Your task to perform on an android device: toggle data saver in the chrome app Image 0: 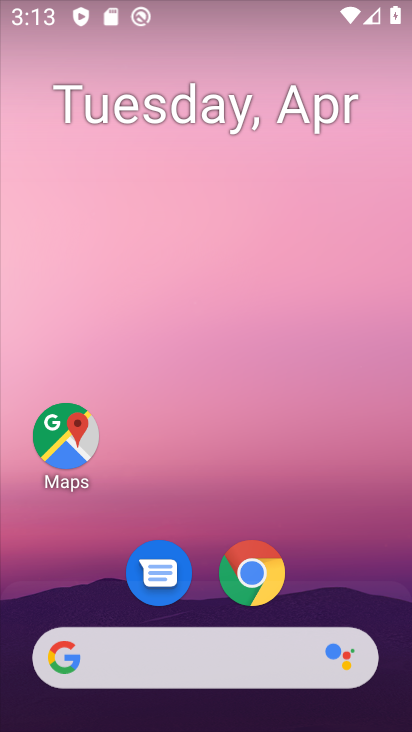
Step 0: click (221, 584)
Your task to perform on an android device: toggle data saver in the chrome app Image 1: 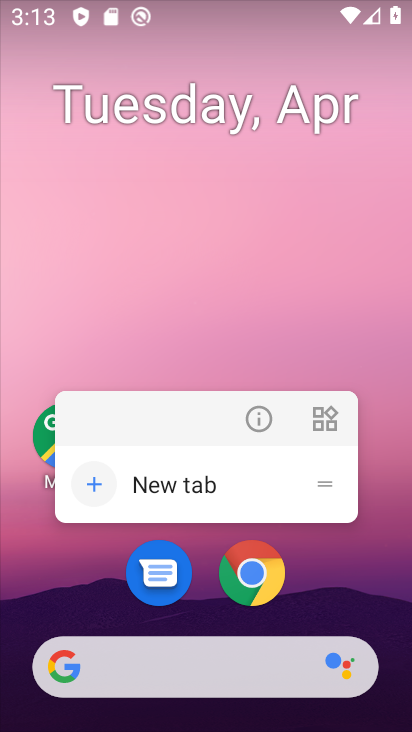
Step 1: click (247, 585)
Your task to perform on an android device: toggle data saver in the chrome app Image 2: 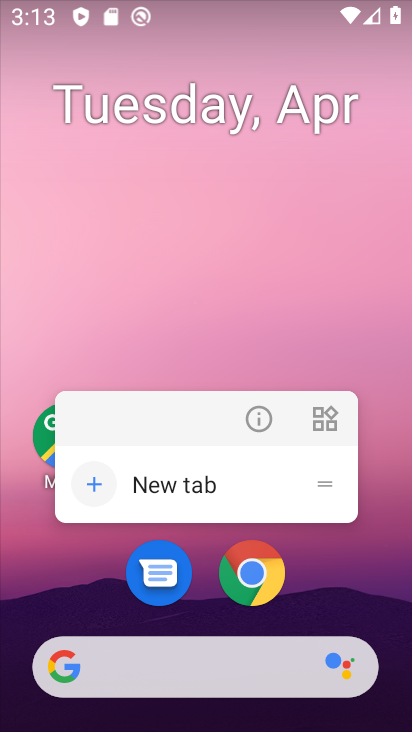
Step 2: click (263, 573)
Your task to perform on an android device: toggle data saver in the chrome app Image 3: 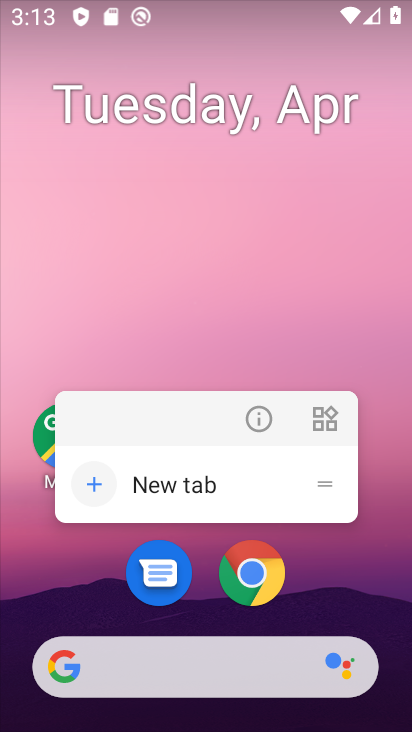
Step 3: click (262, 574)
Your task to perform on an android device: toggle data saver in the chrome app Image 4: 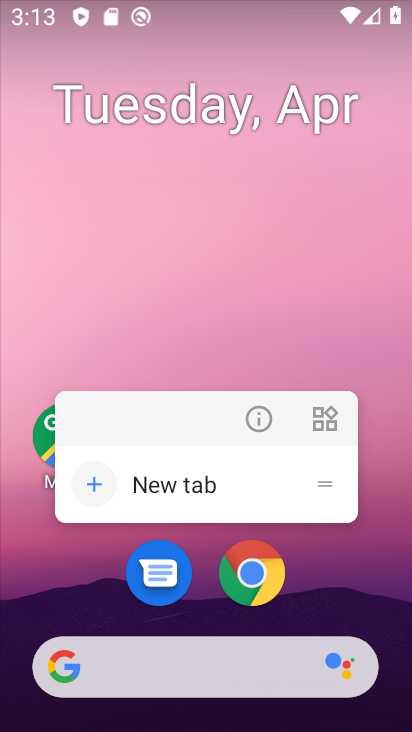
Step 4: click (244, 558)
Your task to perform on an android device: toggle data saver in the chrome app Image 5: 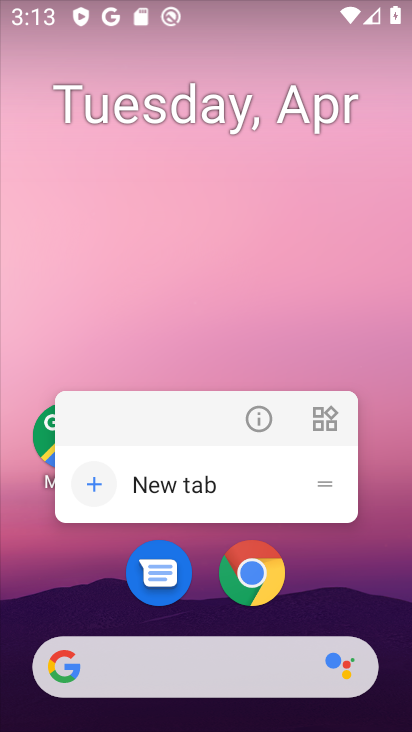
Step 5: click (246, 579)
Your task to perform on an android device: toggle data saver in the chrome app Image 6: 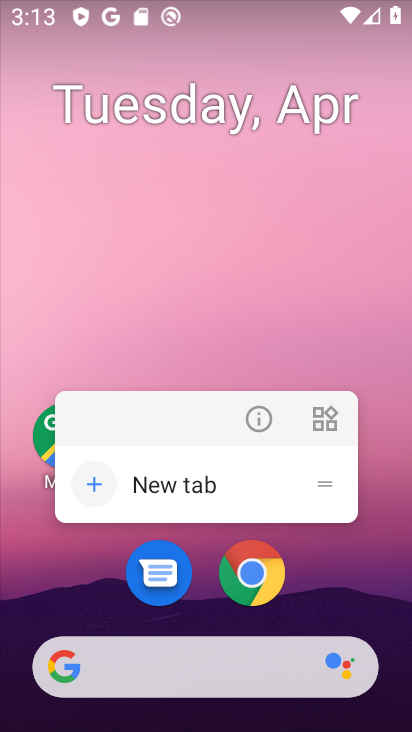
Step 6: click (265, 571)
Your task to perform on an android device: toggle data saver in the chrome app Image 7: 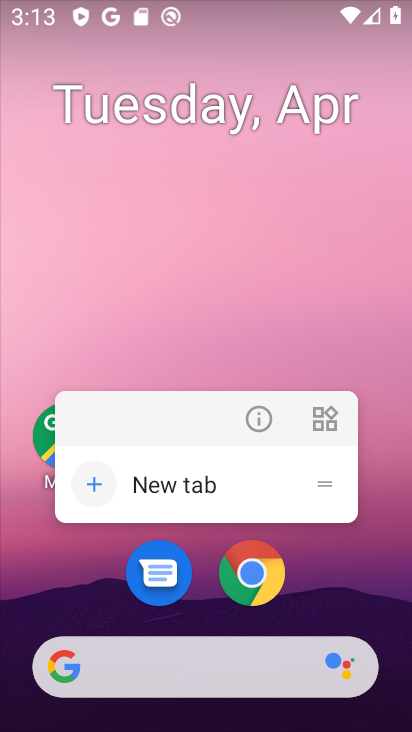
Step 7: click (273, 594)
Your task to perform on an android device: toggle data saver in the chrome app Image 8: 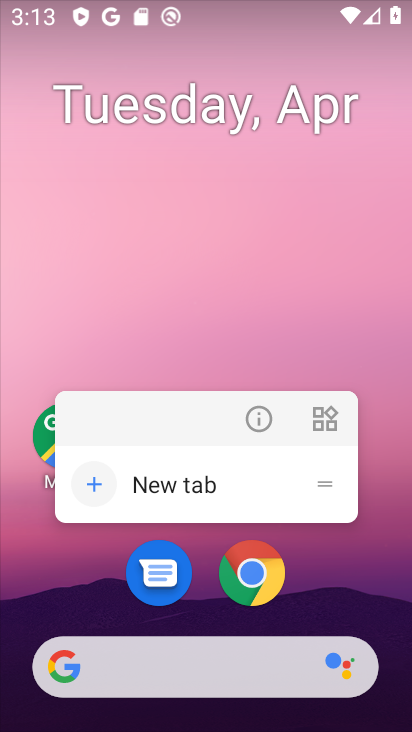
Step 8: click (267, 587)
Your task to perform on an android device: toggle data saver in the chrome app Image 9: 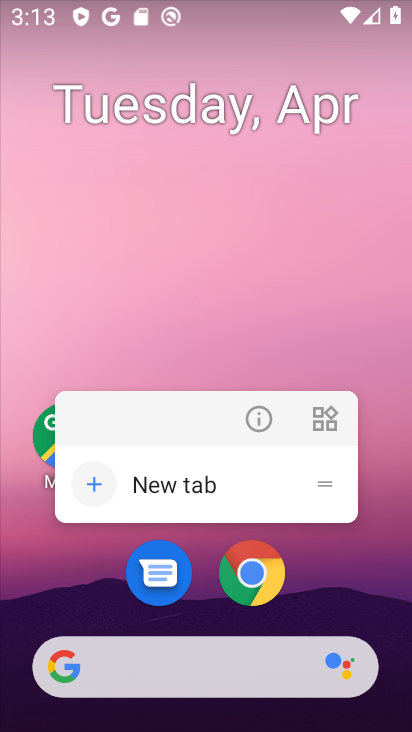
Step 9: drag from (343, 631) to (411, 71)
Your task to perform on an android device: toggle data saver in the chrome app Image 10: 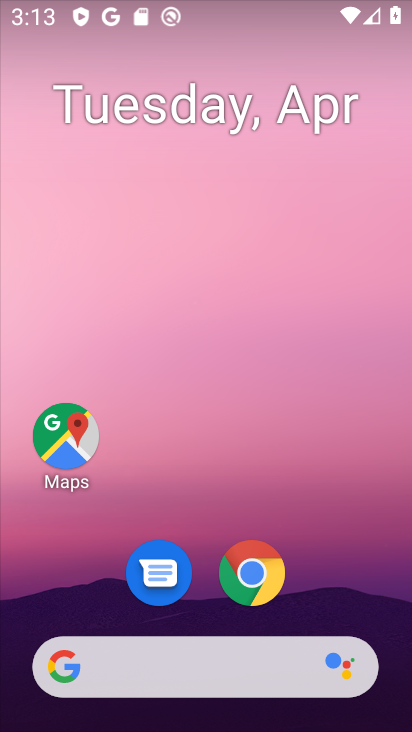
Step 10: drag from (332, 554) to (410, 440)
Your task to perform on an android device: toggle data saver in the chrome app Image 11: 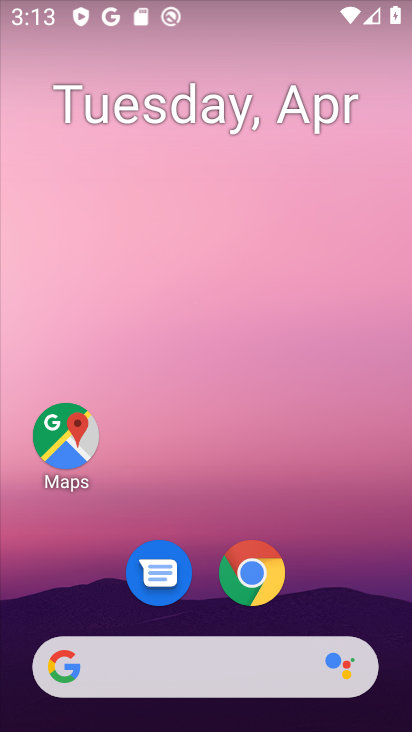
Step 11: drag from (341, 347) to (404, 348)
Your task to perform on an android device: toggle data saver in the chrome app Image 12: 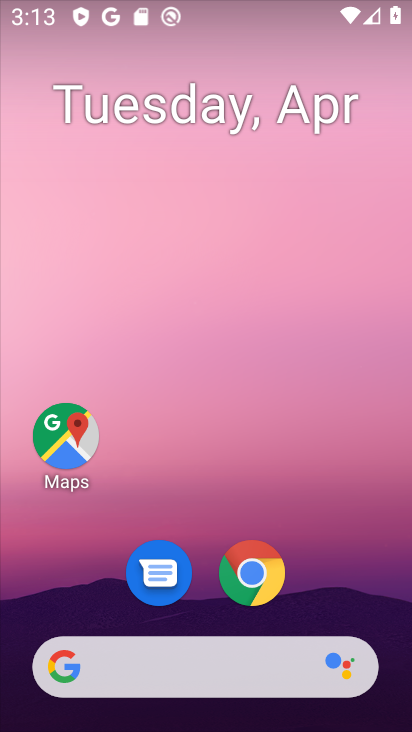
Step 12: drag from (339, 473) to (412, 526)
Your task to perform on an android device: toggle data saver in the chrome app Image 13: 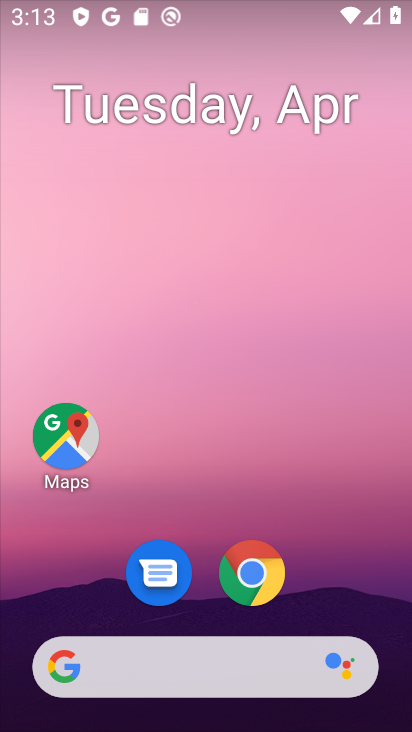
Step 13: drag from (312, 582) to (408, 539)
Your task to perform on an android device: toggle data saver in the chrome app Image 14: 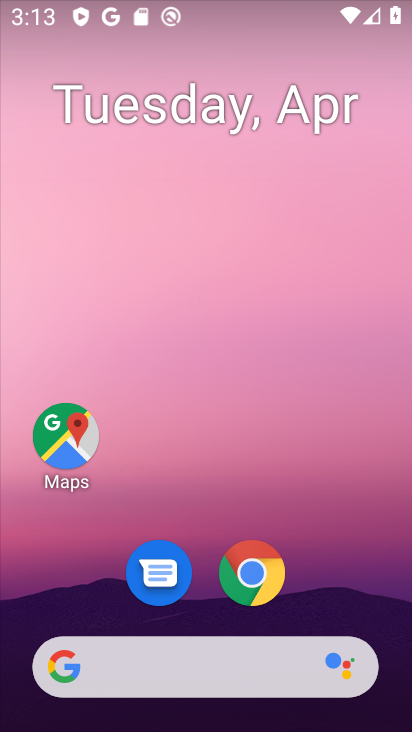
Step 14: click (236, 581)
Your task to perform on an android device: toggle data saver in the chrome app Image 15: 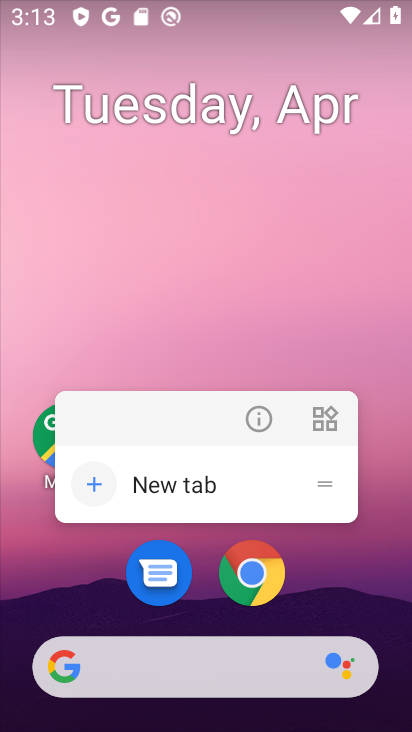
Step 15: drag from (303, 647) to (410, 524)
Your task to perform on an android device: toggle data saver in the chrome app Image 16: 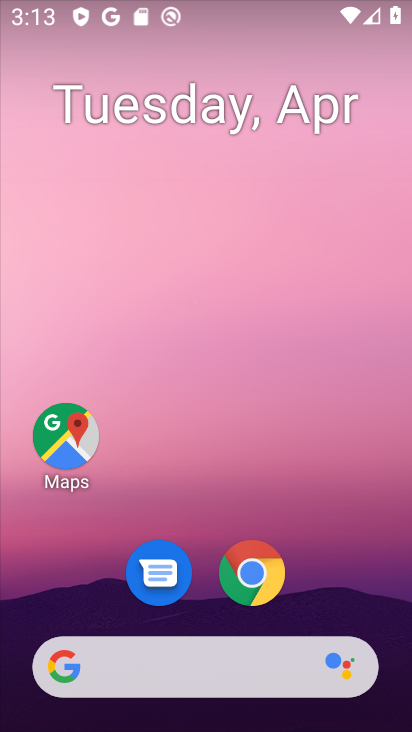
Step 16: drag from (323, 515) to (410, 617)
Your task to perform on an android device: toggle data saver in the chrome app Image 17: 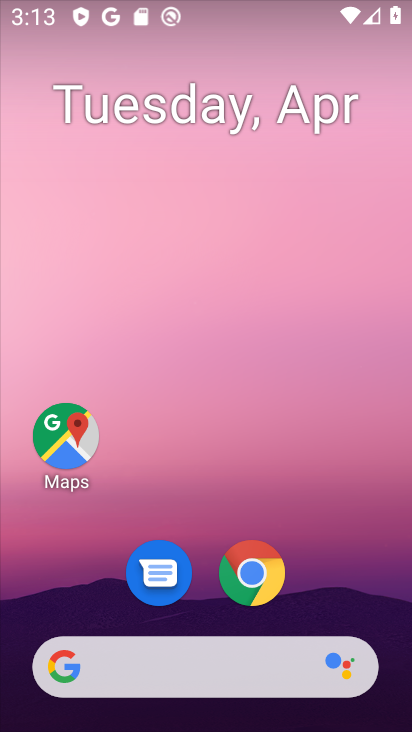
Step 17: click (237, 580)
Your task to perform on an android device: toggle data saver in the chrome app Image 18: 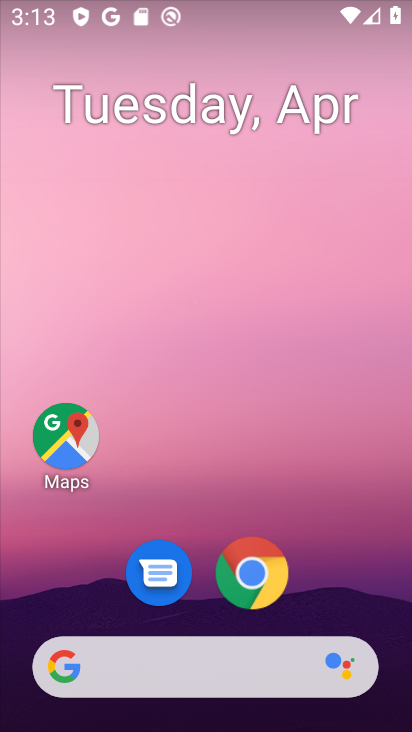
Step 18: click (239, 580)
Your task to perform on an android device: toggle data saver in the chrome app Image 19: 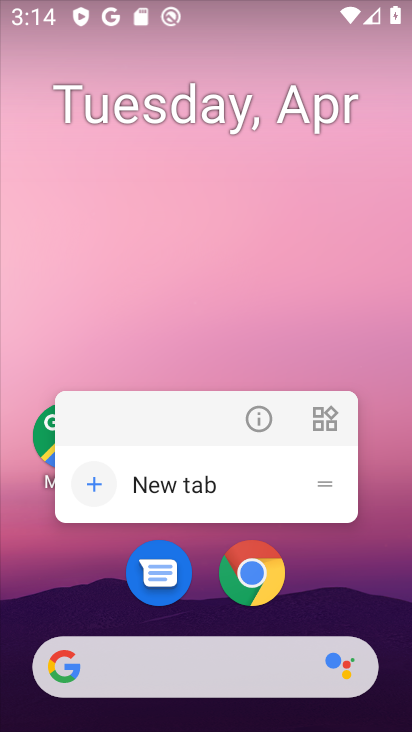
Step 19: click (231, 577)
Your task to perform on an android device: toggle data saver in the chrome app Image 20: 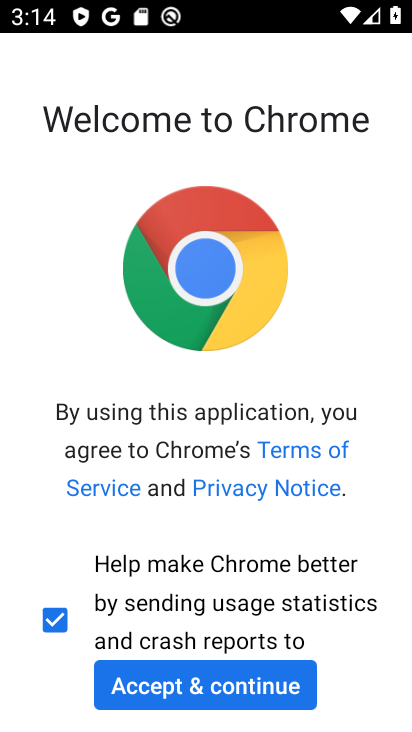
Step 20: click (253, 700)
Your task to perform on an android device: toggle data saver in the chrome app Image 21: 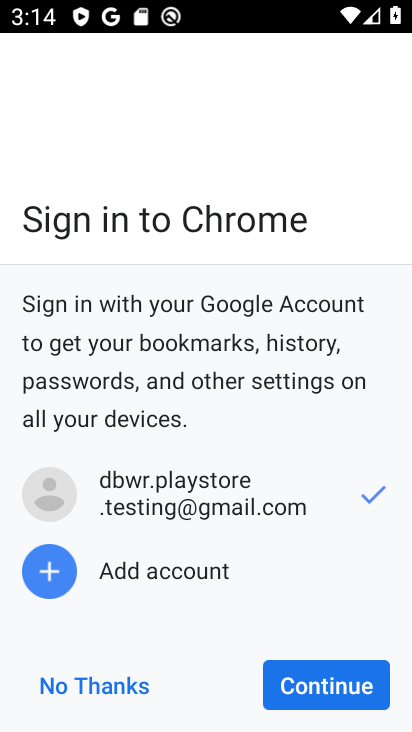
Step 21: click (316, 700)
Your task to perform on an android device: toggle data saver in the chrome app Image 22: 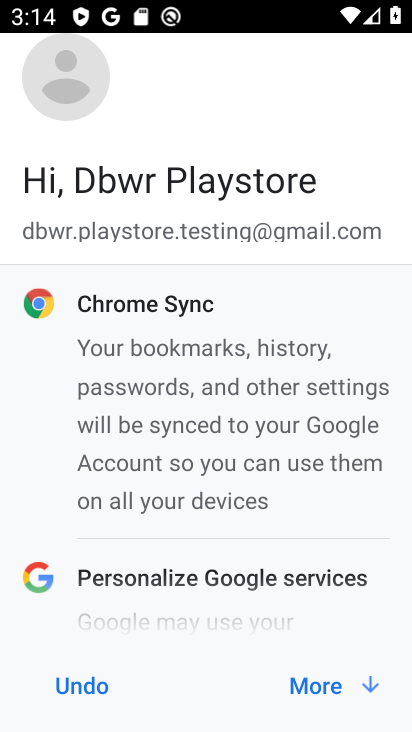
Step 22: click (314, 702)
Your task to perform on an android device: toggle data saver in the chrome app Image 23: 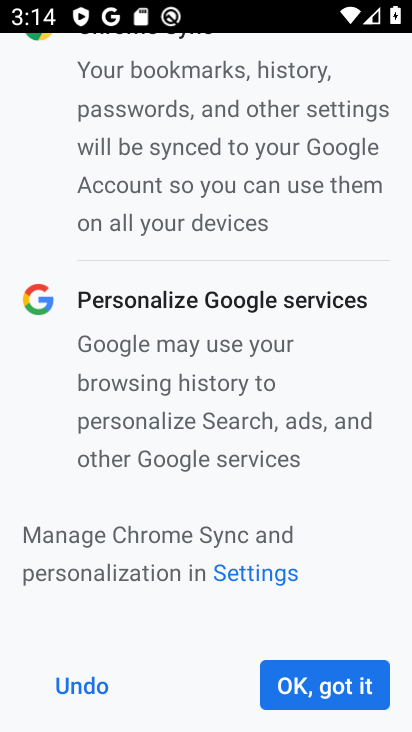
Step 23: click (314, 704)
Your task to perform on an android device: toggle data saver in the chrome app Image 24: 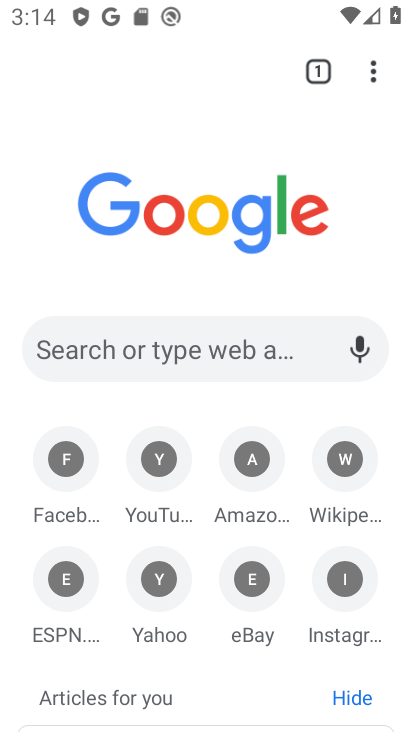
Step 24: click (382, 72)
Your task to perform on an android device: toggle data saver in the chrome app Image 25: 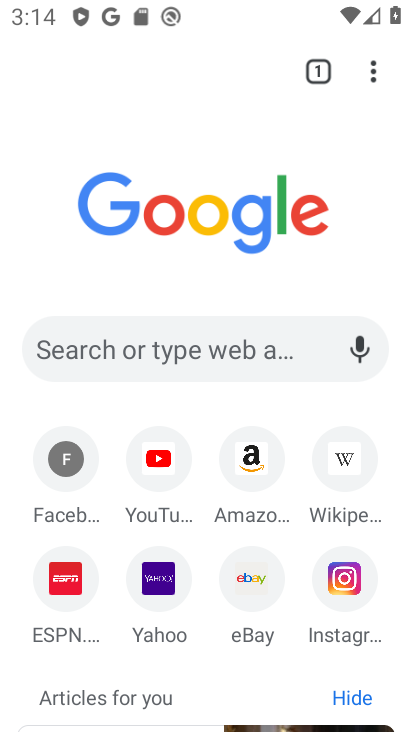
Step 25: drag from (376, 81) to (280, 618)
Your task to perform on an android device: toggle data saver in the chrome app Image 26: 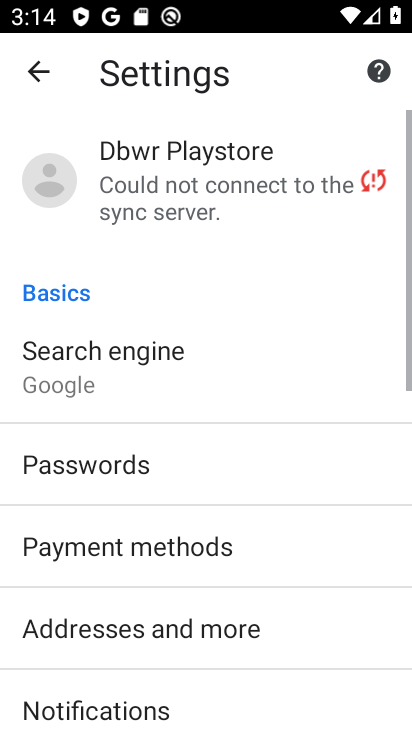
Step 26: drag from (271, 660) to (344, 236)
Your task to perform on an android device: toggle data saver in the chrome app Image 27: 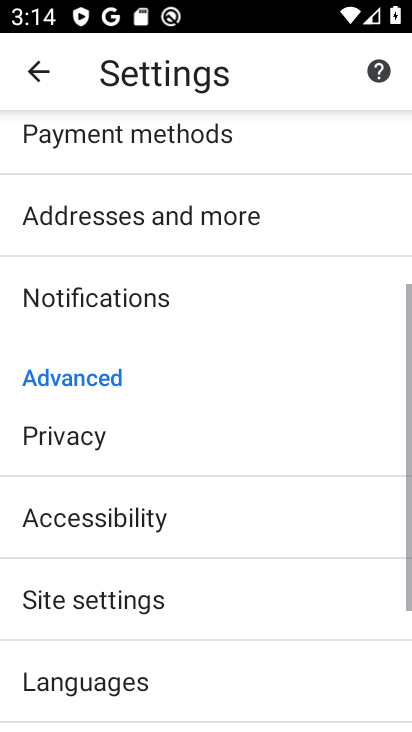
Step 27: drag from (217, 640) to (293, 283)
Your task to perform on an android device: toggle data saver in the chrome app Image 28: 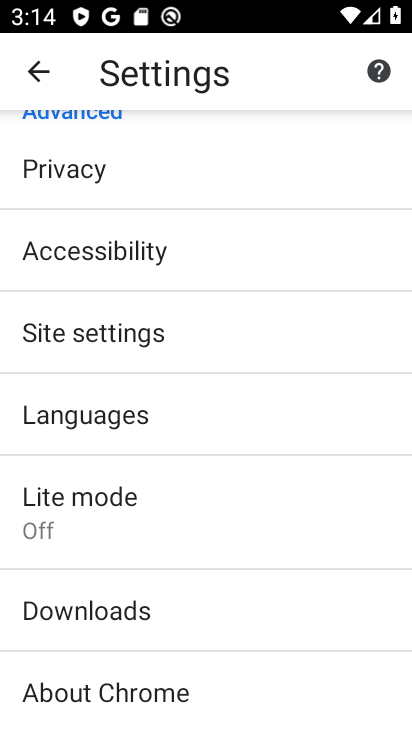
Step 28: click (176, 511)
Your task to perform on an android device: toggle data saver in the chrome app Image 29: 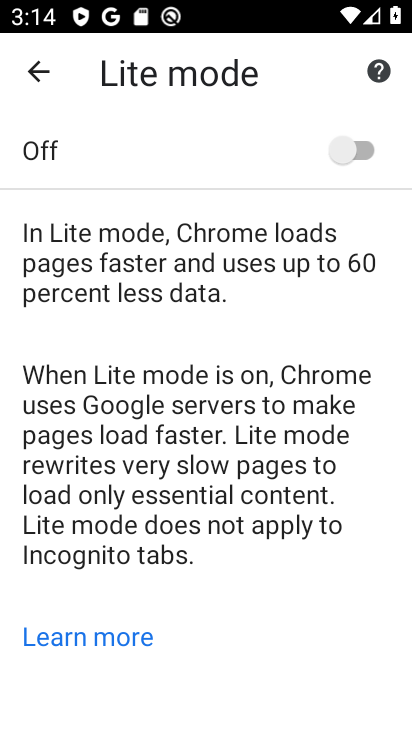
Step 29: click (383, 147)
Your task to perform on an android device: toggle data saver in the chrome app Image 30: 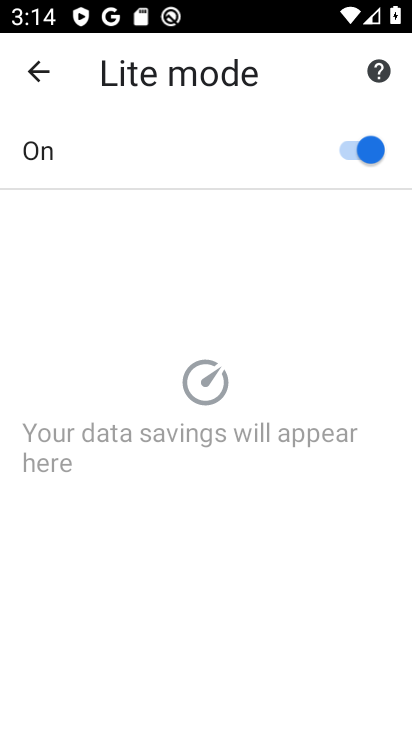
Step 30: task complete